Your task to perform on an android device: turn on wifi Image 0: 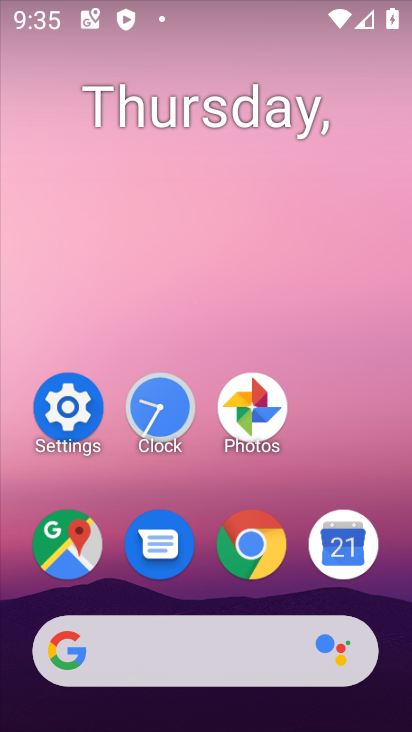
Step 0: click (65, 405)
Your task to perform on an android device: turn on wifi Image 1: 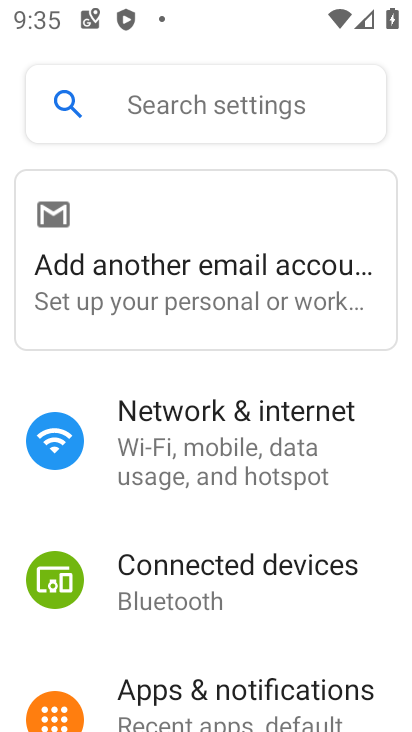
Step 1: click (176, 423)
Your task to perform on an android device: turn on wifi Image 2: 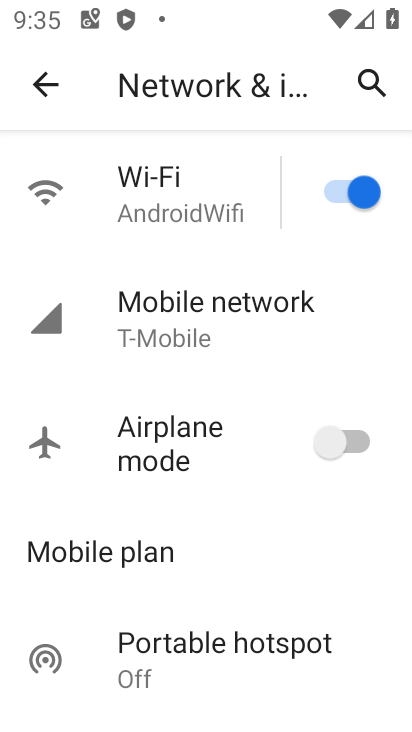
Step 2: task complete